Your task to perform on an android device: turn on airplane mode Image 0: 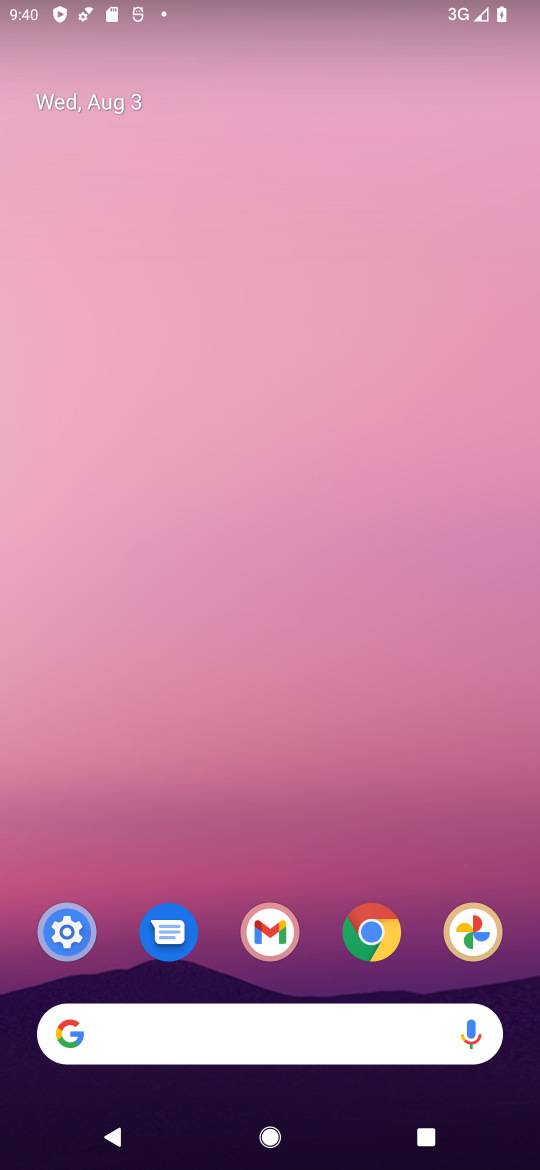
Step 0: press home button
Your task to perform on an android device: turn on airplane mode Image 1: 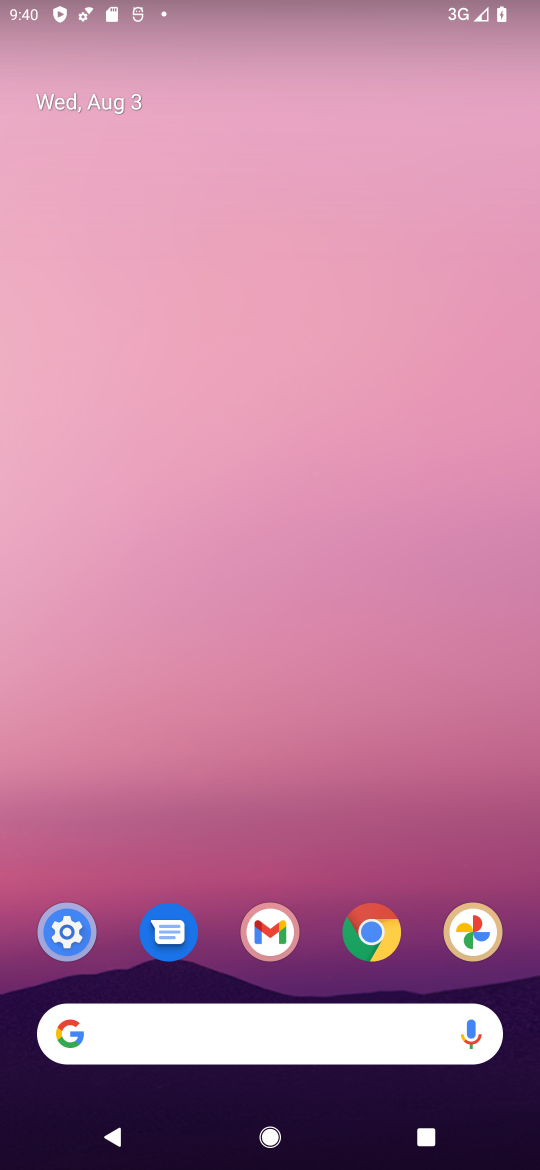
Step 1: click (74, 932)
Your task to perform on an android device: turn on airplane mode Image 2: 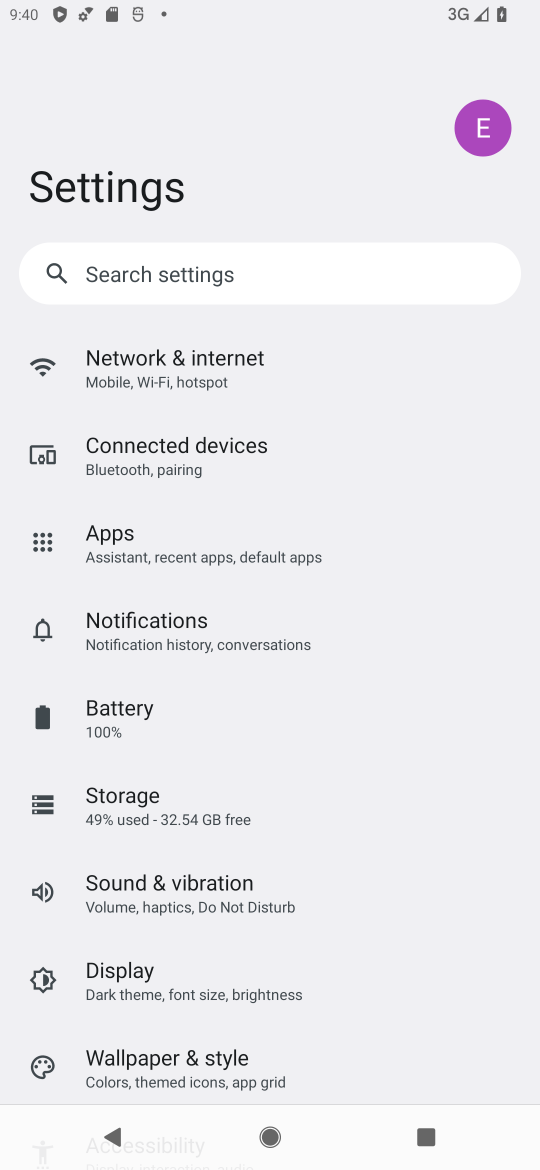
Step 2: click (237, 369)
Your task to perform on an android device: turn on airplane mode Image 3: 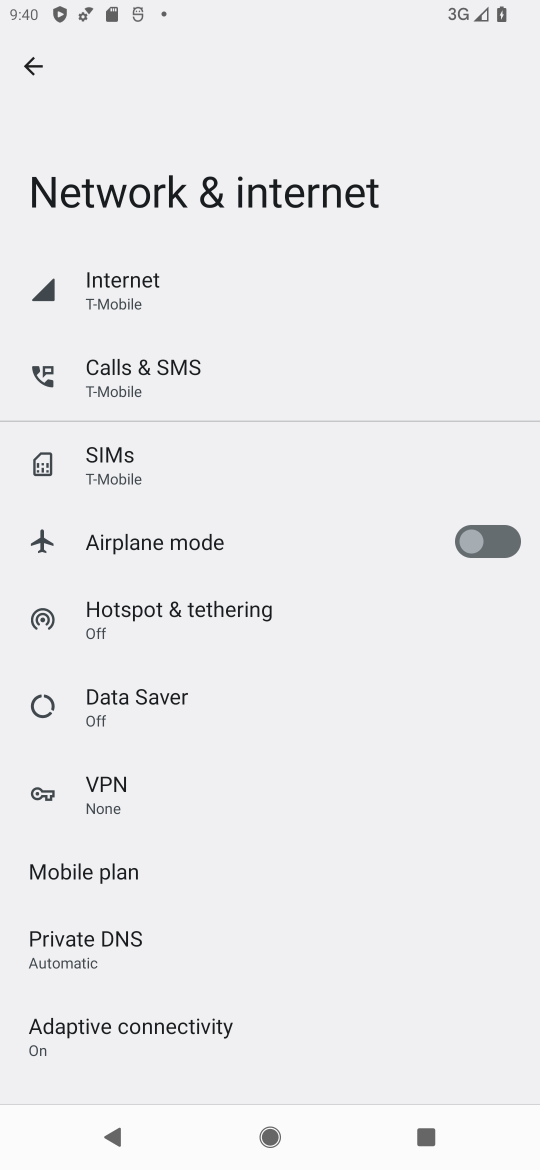
Step 3: click (501, 553)
Your task to perform on an android device: turn on airplane mode Image 4: 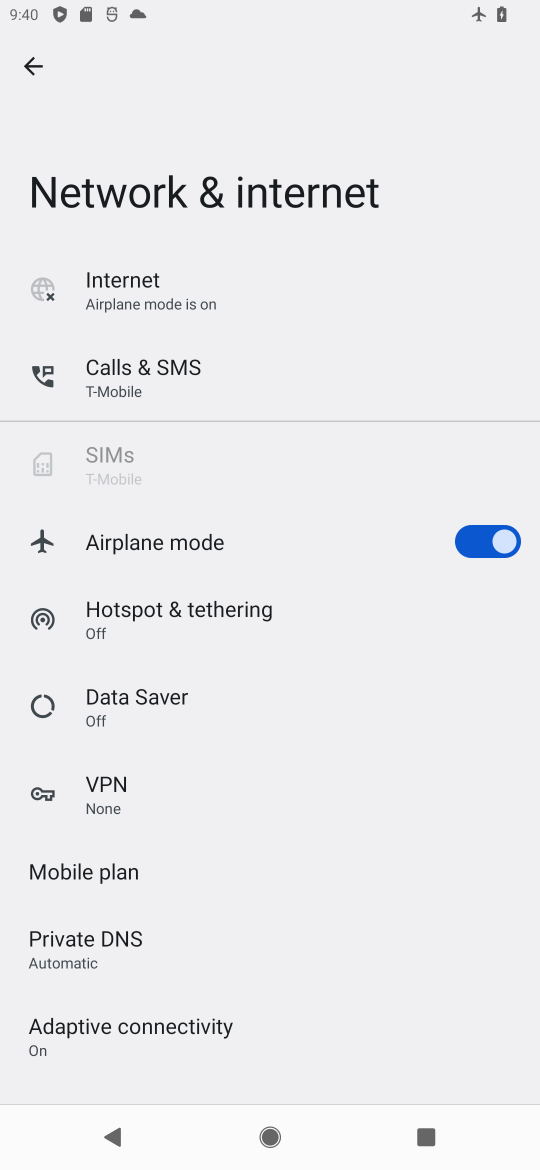
Step 4: task complete